Your task to perform on an android device: turn off location Image 0: 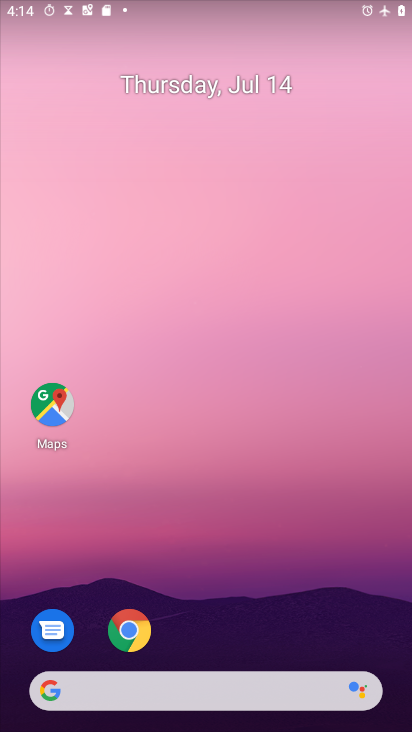
Step 0: drag from (226, 720) to (226, 176)
Your task to perform on an android device: turn off location Image 1: 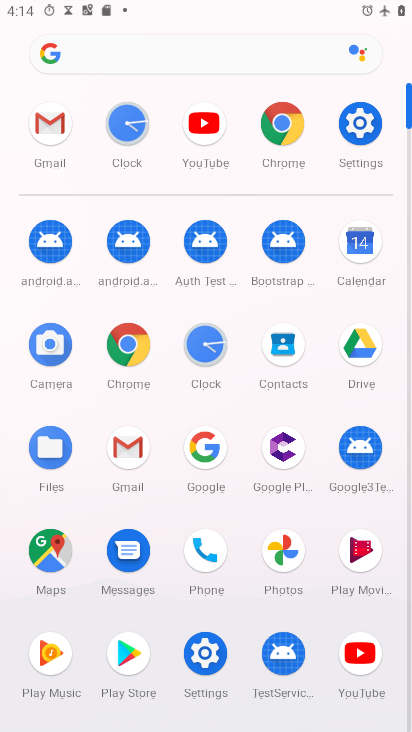
Step 1: click (351, 124)
Your task to perform on an android device: turn off location Image 2: 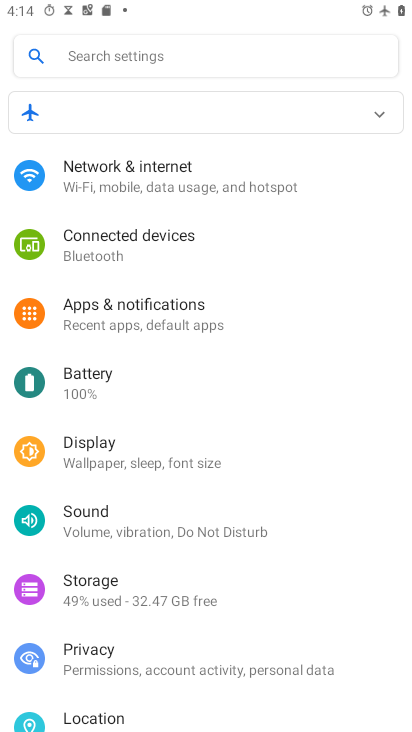
Step 2: click (92, 714)
Your task to perform on an android device: turn off location Image 3: 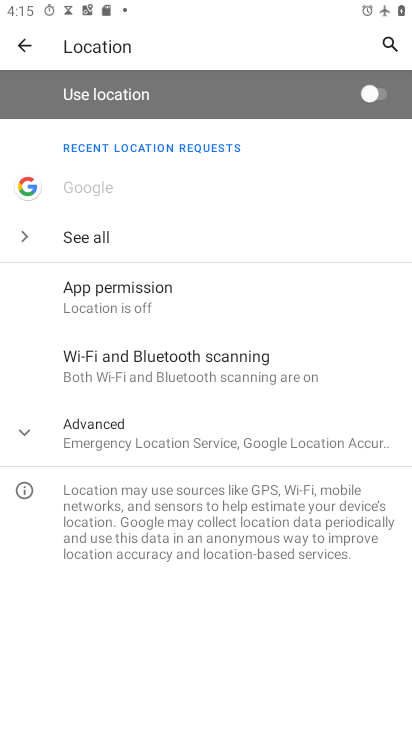
Step 3: task complete